Your task to perform on an android device: delete the emails in spam in the gmail app Image 0: 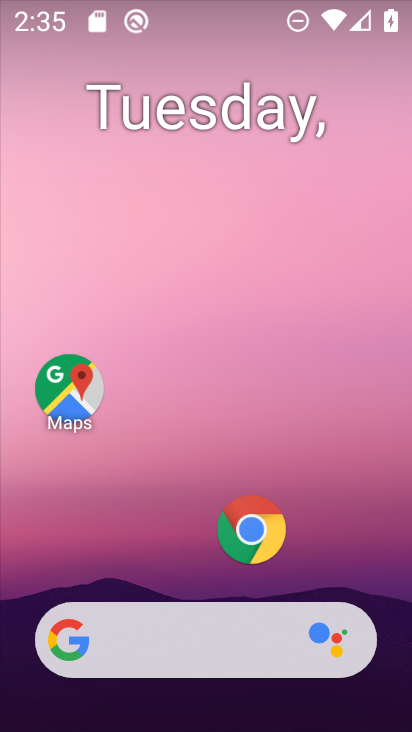
Step 0: drag from (214, 676) to (221, 16)
Your task to perform on an android device: delete the emails in spam in the gmail app Image 1: 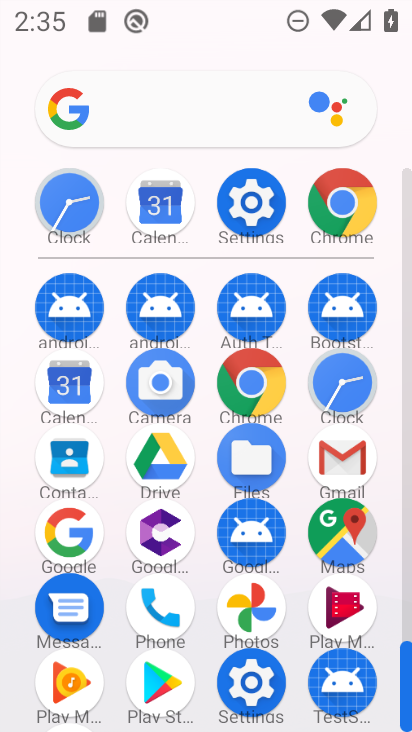
Step 1: click (350, 444)
Your task to perform on an android device: delete the emails in spam in the gmail app Image 2: 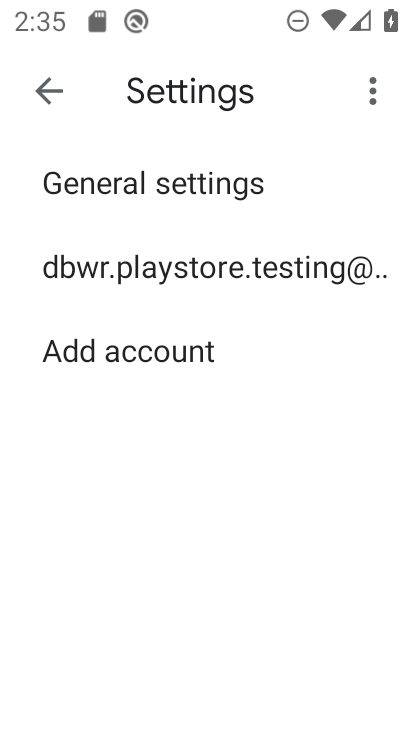
Step 2: click (46, 80)
Your task to perform on an android device: delete the emails in spam in the gmail app Image 3: 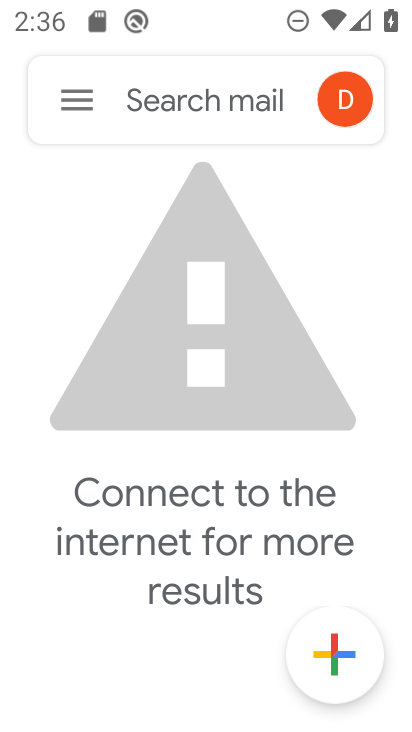
Step 3: task complete